Your task to perform on an android device: Open sound settings Image 0: 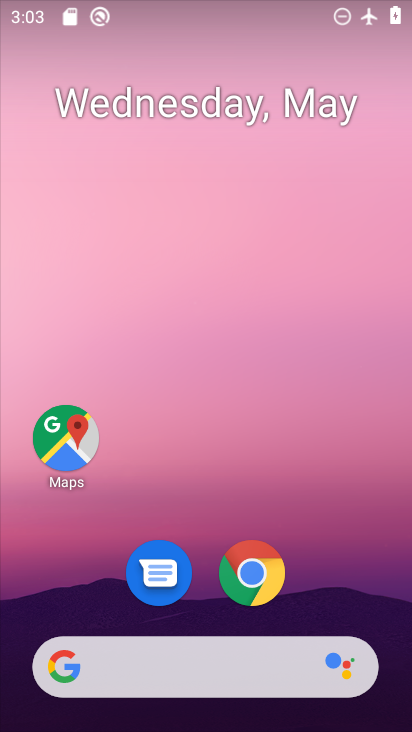
Step 0: drag from (326, 621) to (361, 29)
Your task to perform on an android device: Open sound settings Image 1: 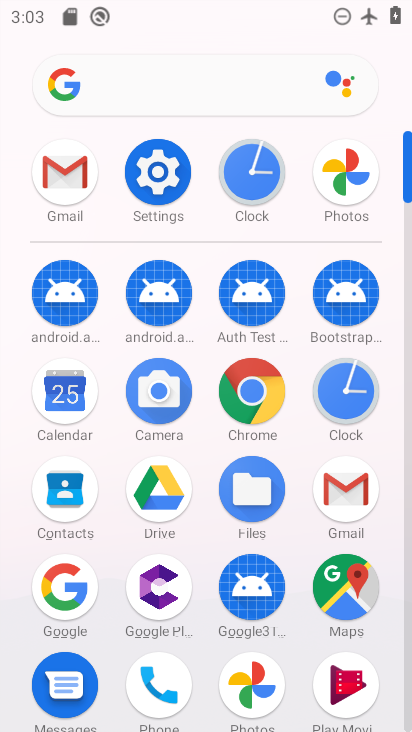
Step 1: click (164, 179)
Your task to perform on an android device: Open sound settings Image 2: 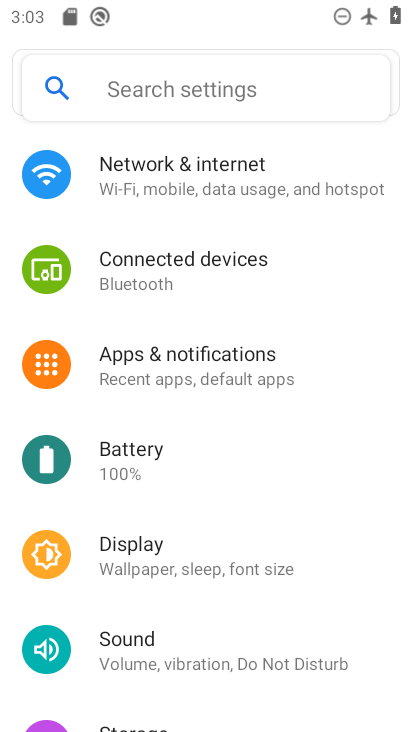
Step 2: click (168, 662)
Your task to perform on an android device: Open sound settings Image 3: 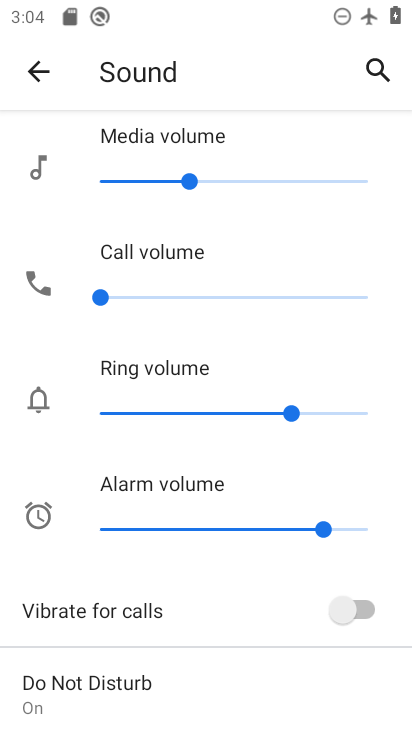
Step 3: task complete